Your task to perform on an android device: Go to sound settings Image 0: 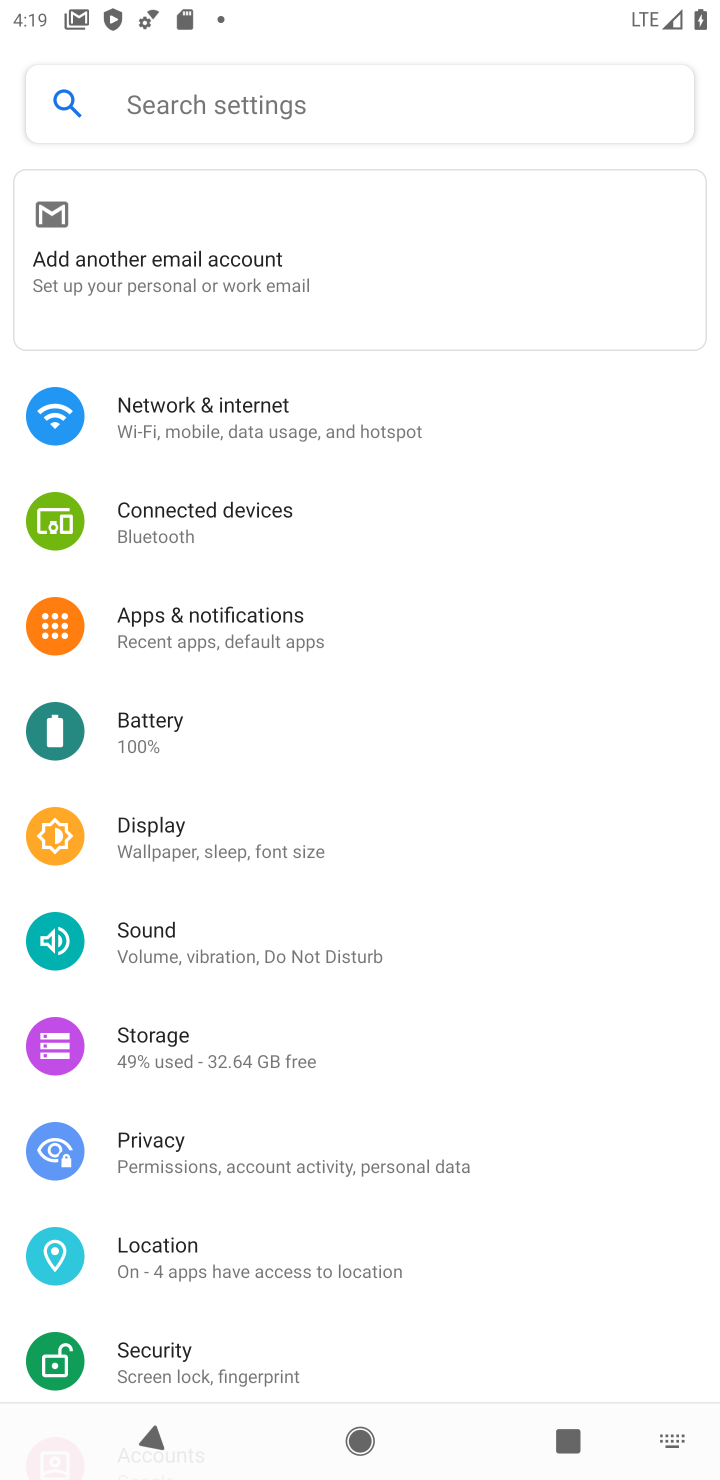
Step 0: click (428, 937)
Your task to perform on an android device: Go to sound settings Image 1: 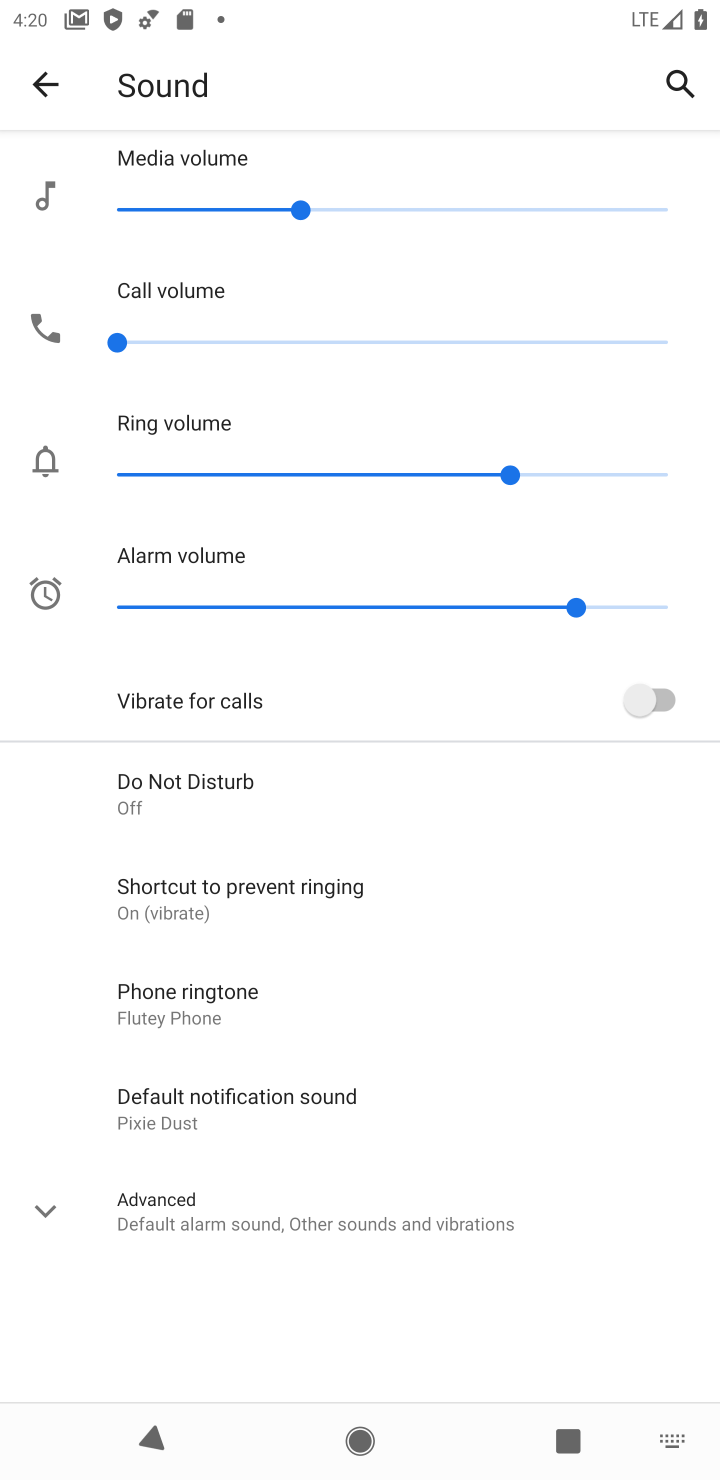
Step 1: task complete